Your task to perform on an android device: allow cookies in the chrome app Image 0: 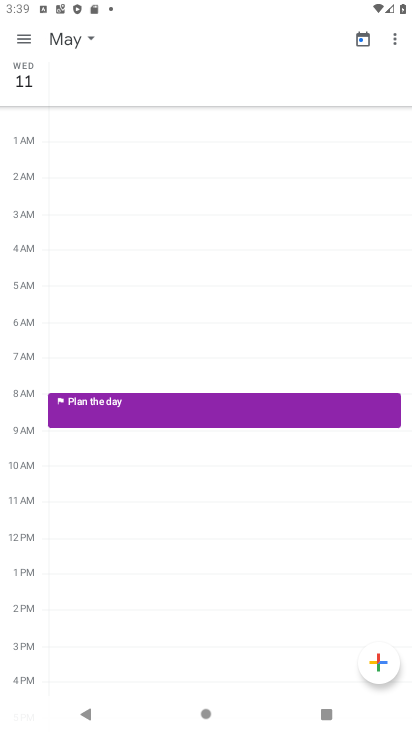
Step 0: press home button
Your task to perform on an android device: allow cookies in the chrome app Image 1: 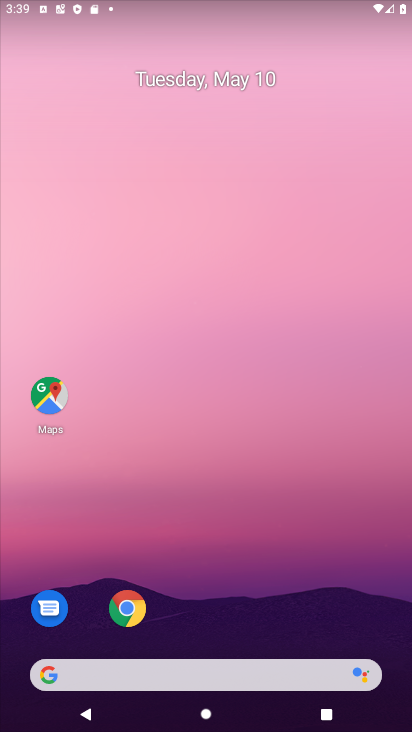
Step 1: click (124, 613)
Your task to perform on an android device: allow cookies in the chrome app Image 2: 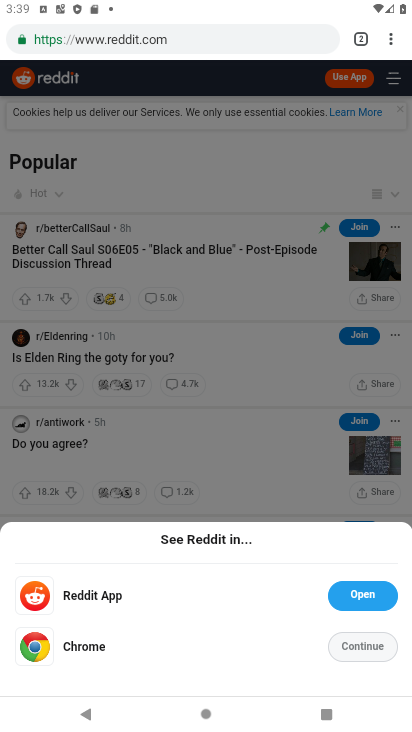
Step 2: click (390, 38)
Your task to perform on an android device: allow cookies in the chrome app Image 3: 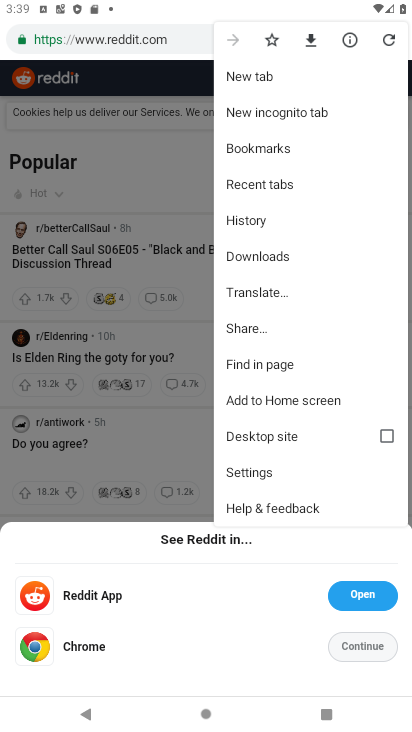
Step 3: click (252, 473)
Your task to perform on an android device: allow cookies in the chrome app Image 4: 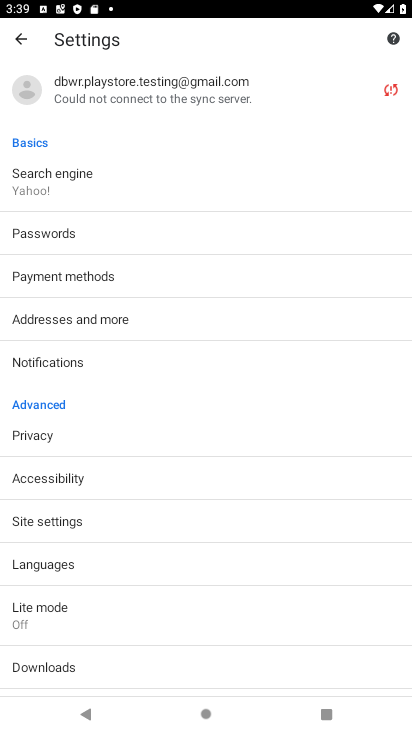
Step 4: click (46, 511)
Your task to perform on an android device: allow cookies in the chrome app Image 5: 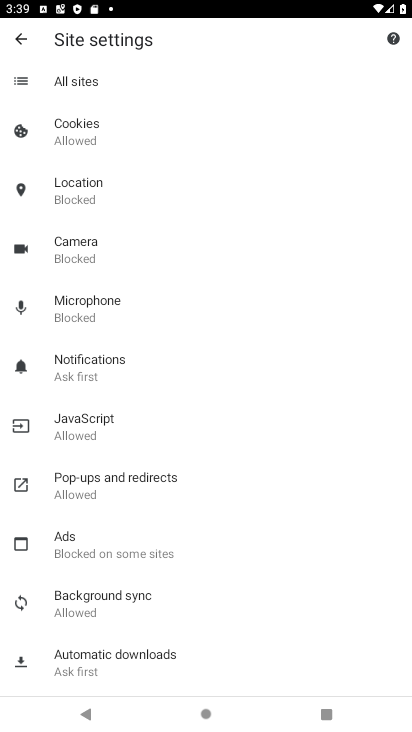
Step 5: click (76, 122)
Your task to perform on an android device: allow cookies in the chrome app Image 6: 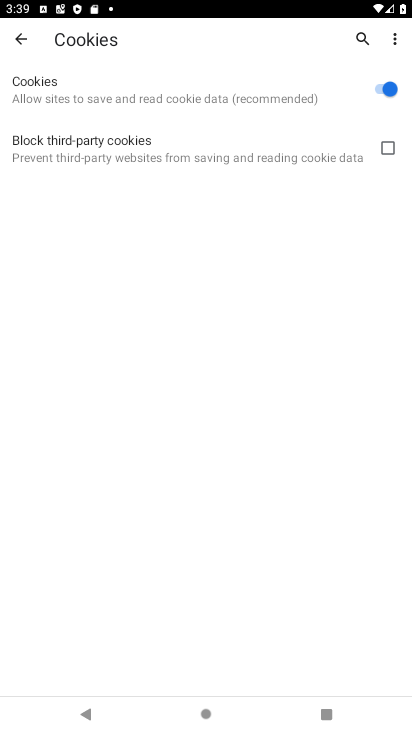
Step 6: task complete